Your task to perform on an android device: turn off translation in the chrome app Image 0: 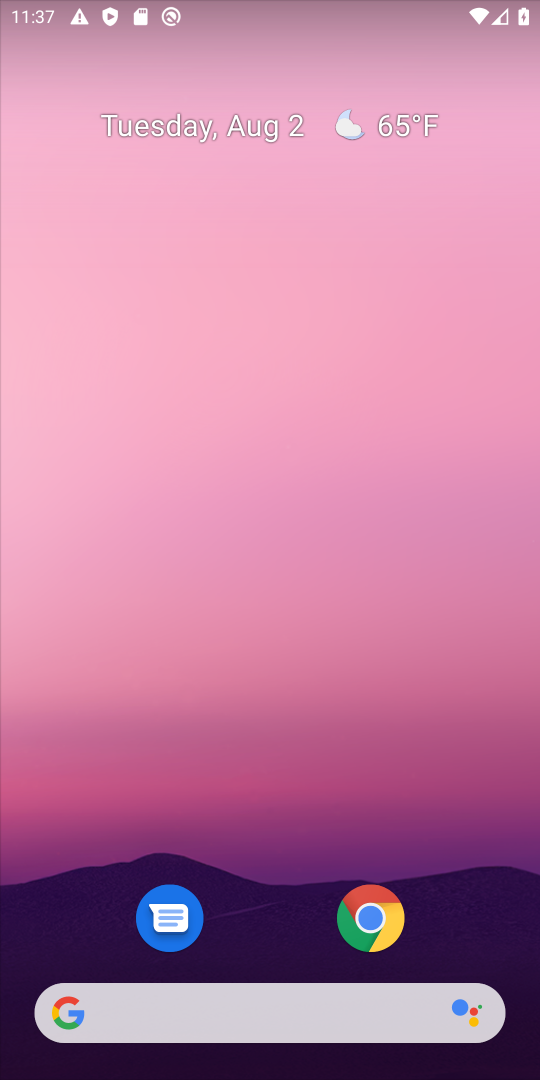
Step 0: click (383, 922)
Your task to perform on an android device: turn off translation in the chrome app Image 1: 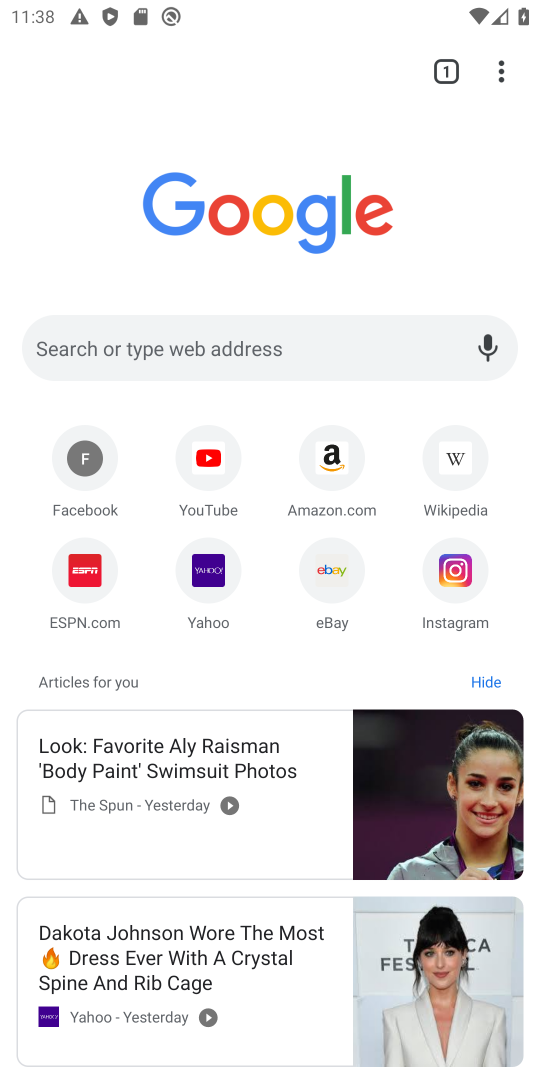
Step 1: click (506, 74)
Your task to perform on an android device: turn off translation in the chrome app Image 2: 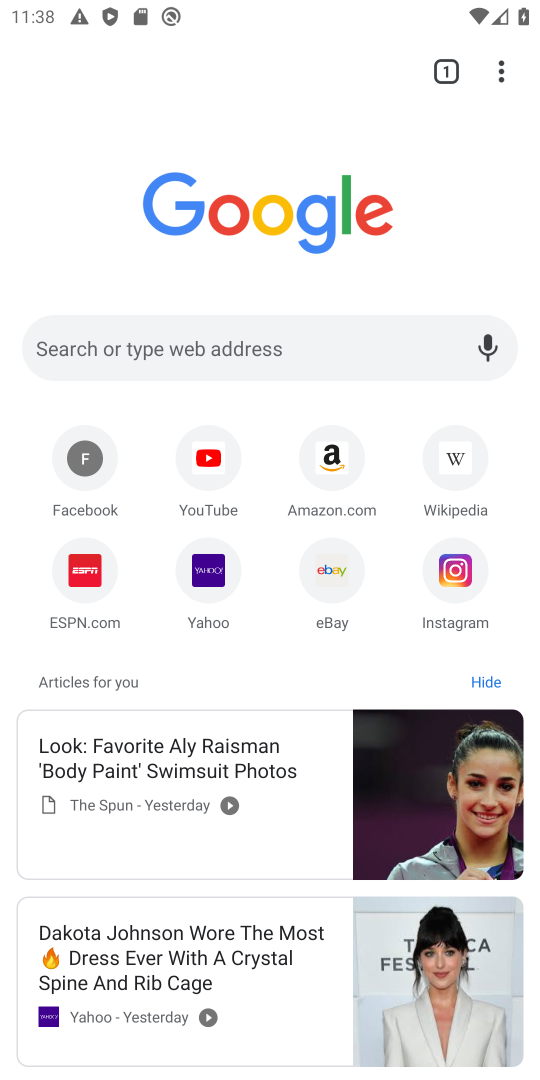
Step 2: click (506, 76)
Your task to perform on an android device: turn off translation in the chrome app Image 3: 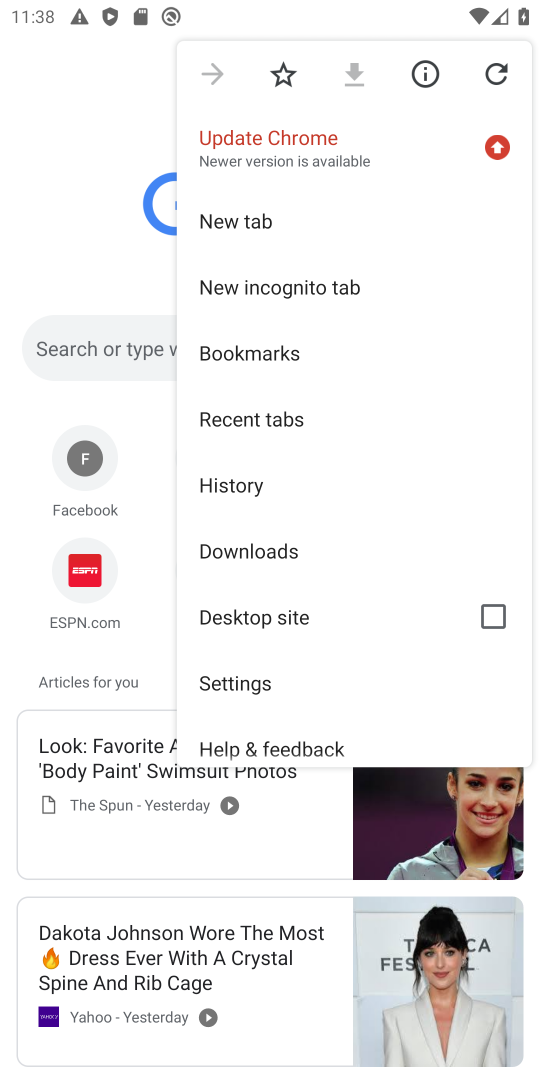
Step 3: click (256, 680)
Your task to perform on an android device: turn off translation in the chrome app Image 4: 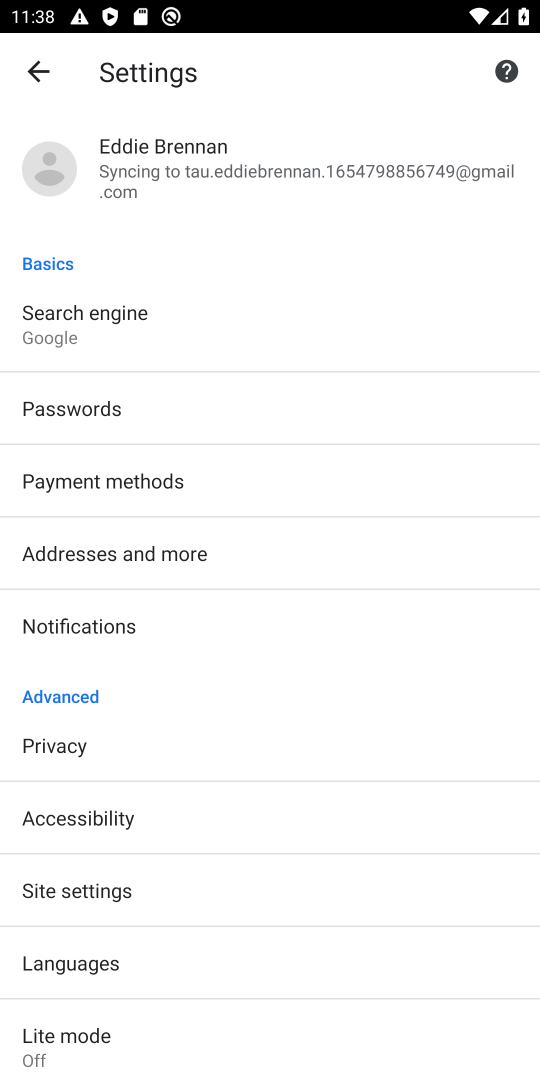
Step 4: click (195, 967)
Your task to perform on an android device: turn off translation in the chrome app Image 5: 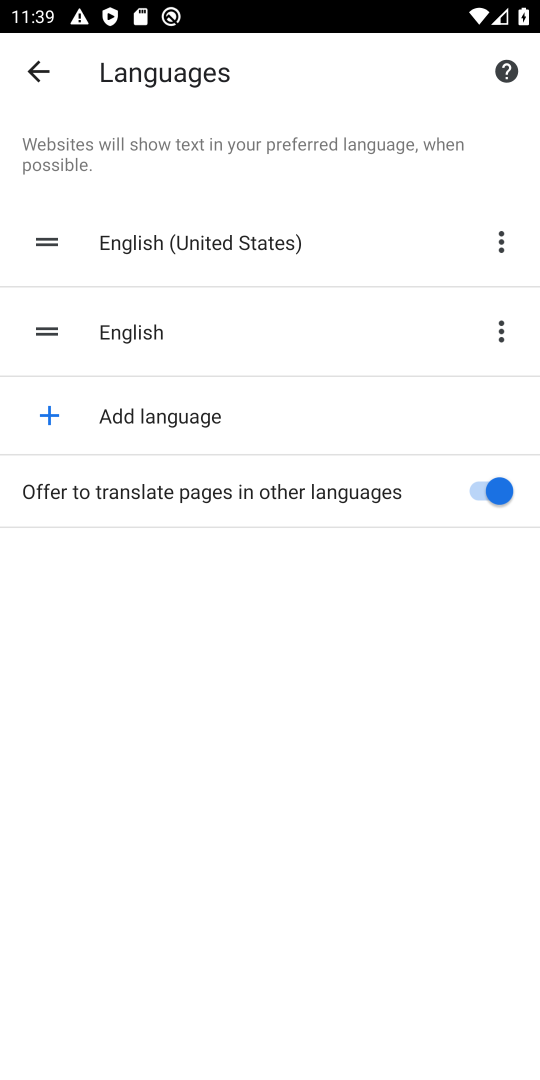
Step 5: click (492, 492)
Your task to perform on an android device: turn off translation in the chrome app Image 6: 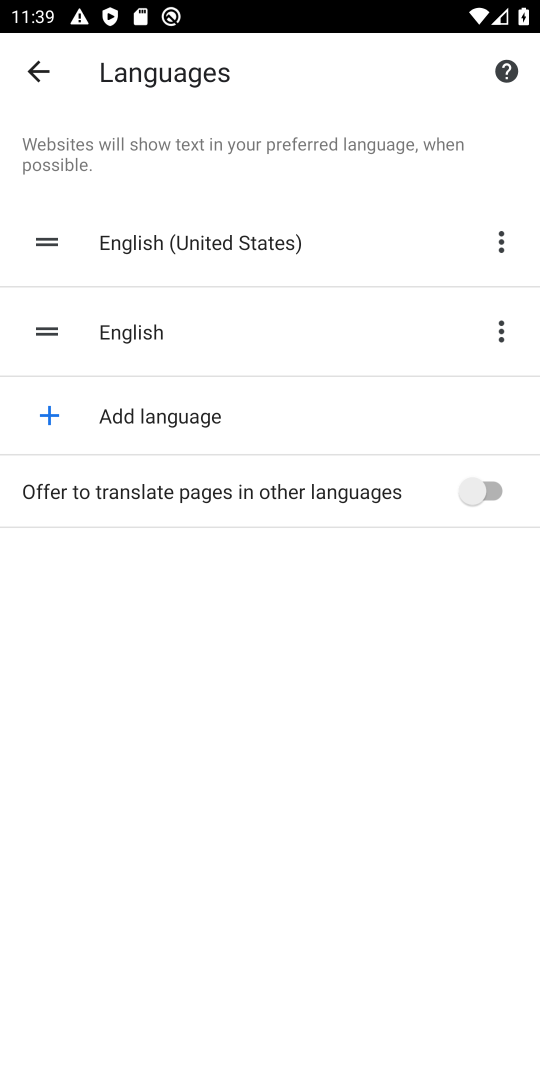
Step 6: task complete